Your task to perform on an android device: Turn off the flashlight Image 0: 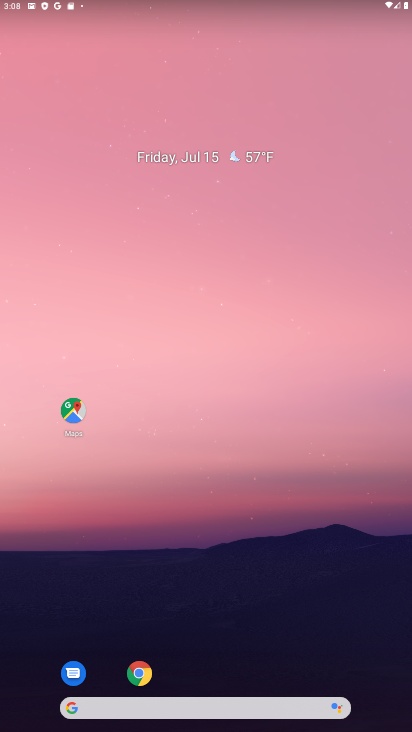
Step 0: drag from (203, 499) to (202, 151)
Your task to perform on an android device: Turn off the flashlight Image 1: 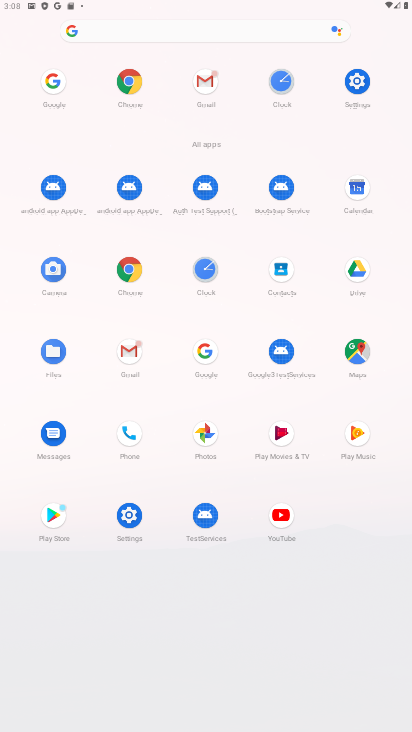
Step 1: task complete